Your task to perform on an android device: Show me popular videos on Youtube Image 0: 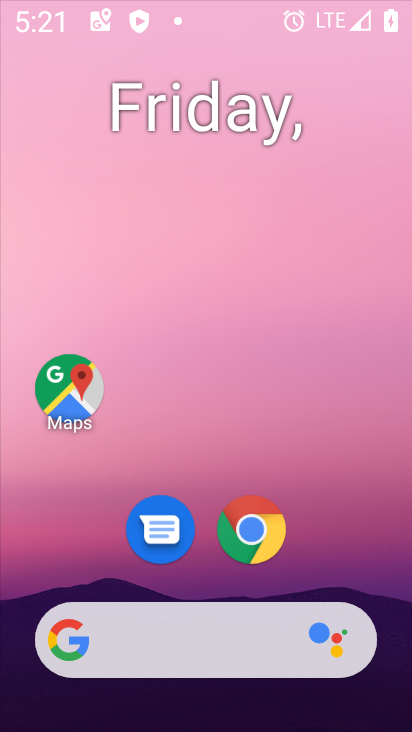
Step 0: drag from (259, 145) to (225, 36)
Your task to perform on an android device: Show me popular videos on Youtube Image 1: 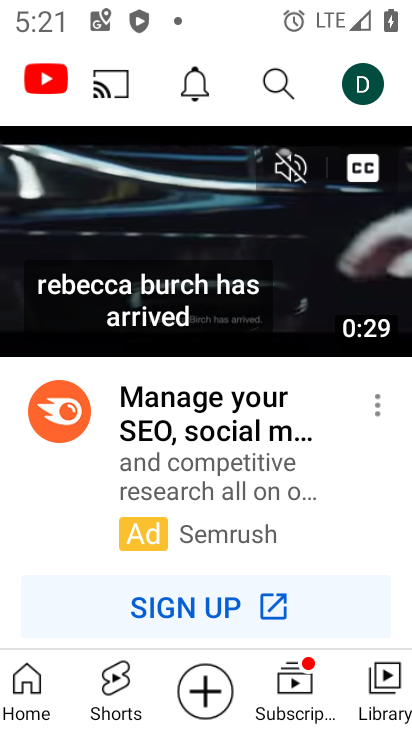
Step 1: click (24, 686)
Your task to perform on an android device: Show me popular videos on Youtube Image 2: 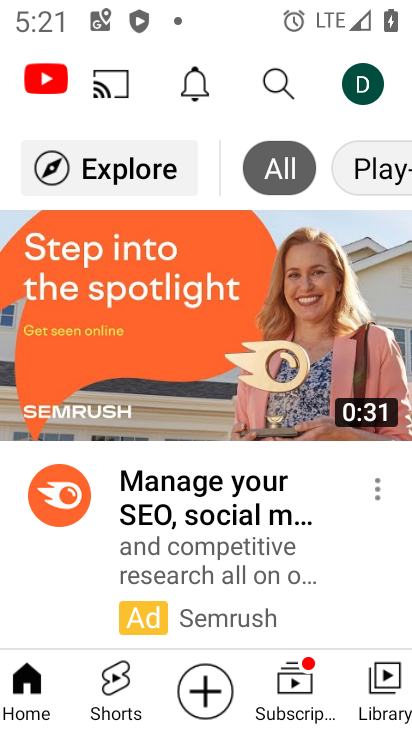
Step 2: click (114, 144)
Your task to perform on an android device: Show me popular videos on Youtube Image 3: 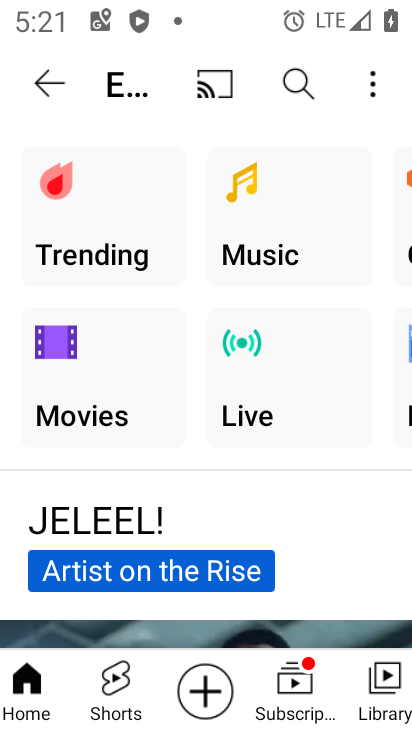
Step 3: click (100, 252)
Your task to perform on an android device: Show me popular videos on Youtube Image 4: 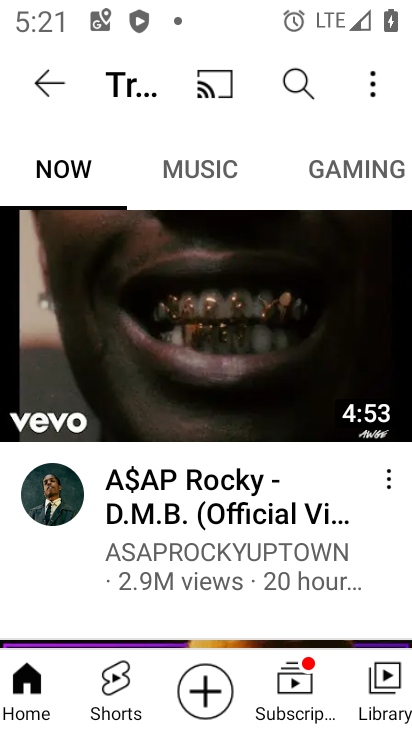
Step 4: task complete